Your task to perform on an android device: open a new tab in the chrome app Image 0: 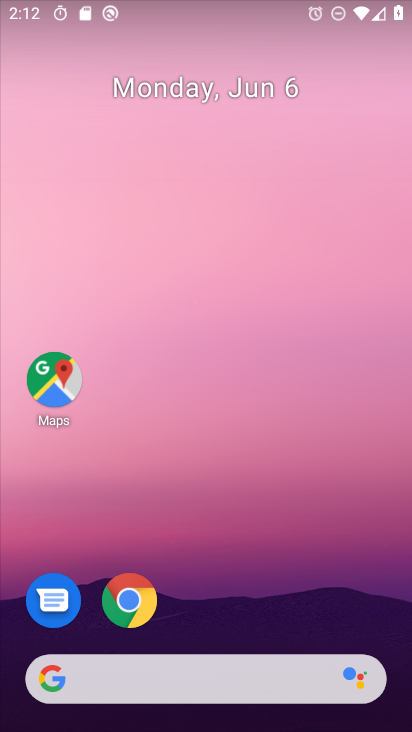
Step 0: click (145, 585)
Your task to perform on an android device: open a new tab in the chrome app Image 1: 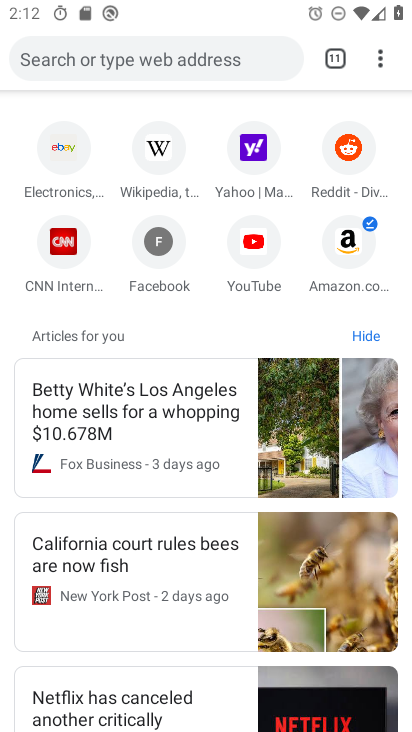
Step 1: click (339, 60)
Your task to perform on an android device: open a new tab in the chrome app Image 2: 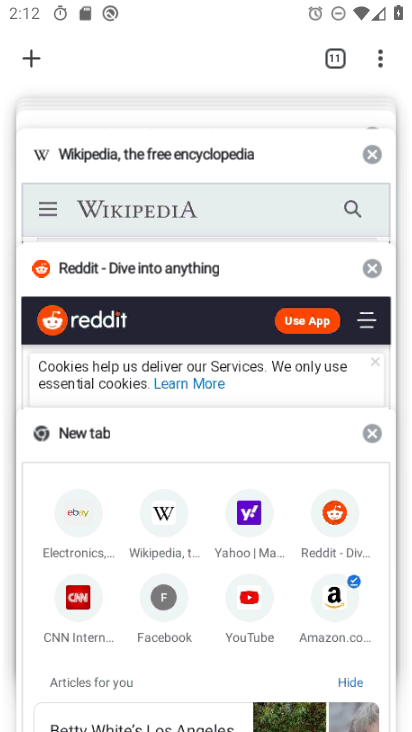
Step 2: click (23, 56)
Your task to perform on an android device: open a new tab in the chrome app Image 3: 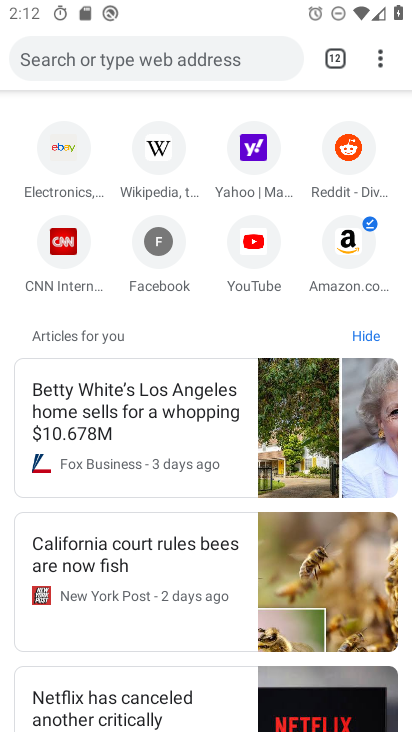
Step 3: task complete